Your task to perform on an android device: turn off picture-in-picture Image 0: 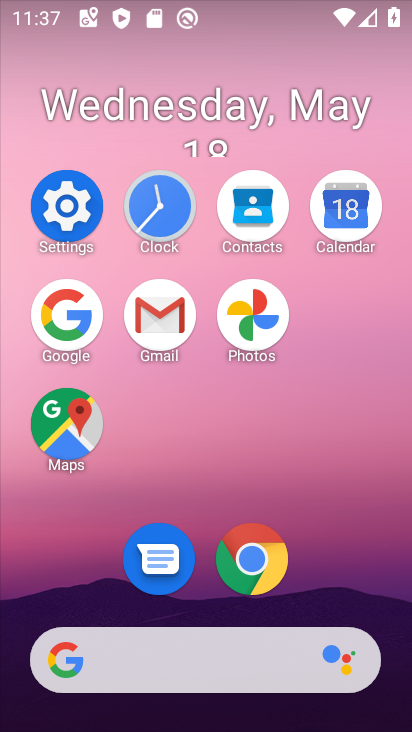
Step 0: click (242, 560)
Your task to perform on an android device: turn off picture-in-picture Image 1: 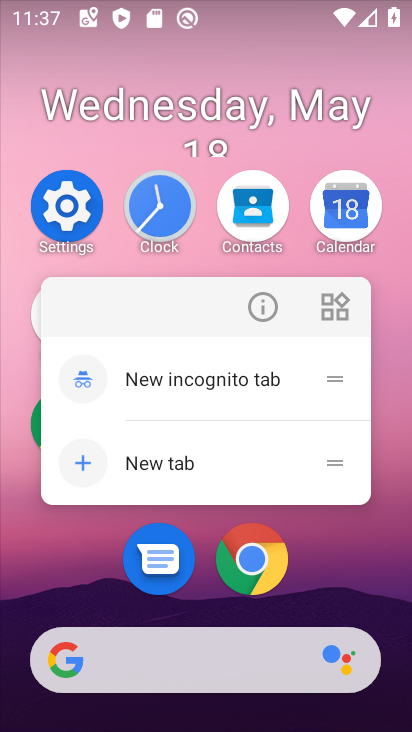
Step 1: click (272, 308)
Your task to perform on an android device: turn off picture-in-picture Image 2: 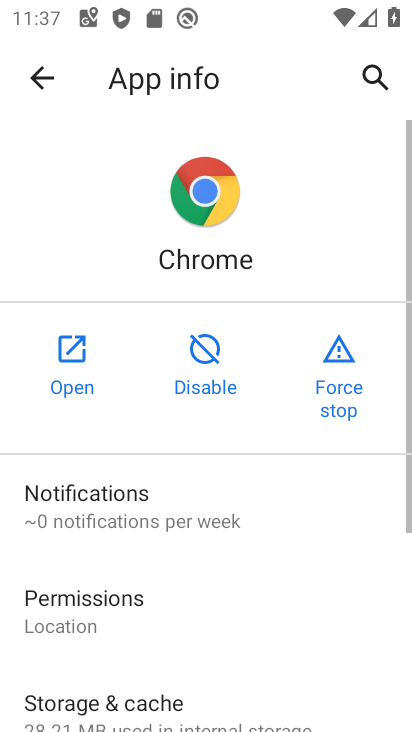
Step 2: drag from (252, 551) to (303, 159)
Your task to perform on an android device: turn off picture-in-picture Image 3: 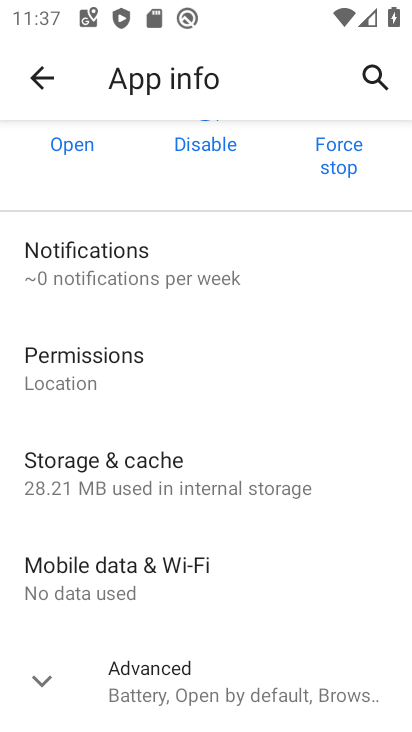
Step 3: drag from (254, 624) to (339, 146)
Your task to perform on an android device: turn off picture-in-picture Image 4: 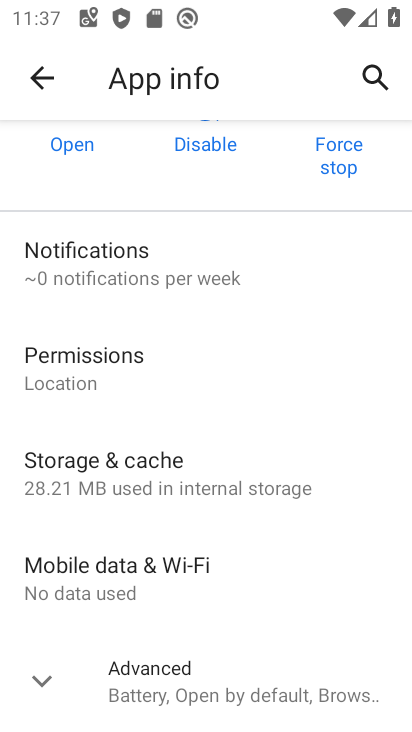
Step 4: click (198, 668)
Your task to perform on an android device: turn off picture-in-picture Image 5: 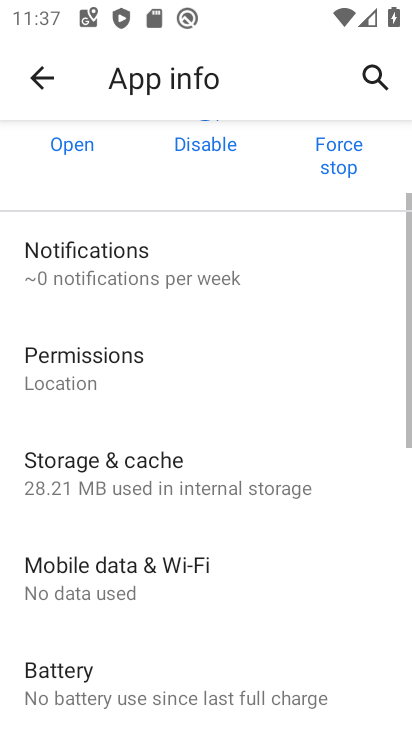
Step 5: drag from (275, 593) to (311, 203)
Your task to perform on an android device: turn off picture-in-picture Image 6: 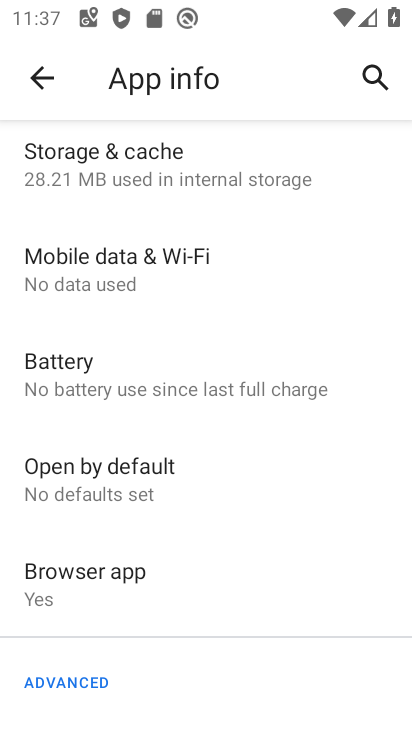
Step 6: drag from (240, 647) to (325, 172)
Your task to perform on an android device: turn off picture-in-picture Image 7: 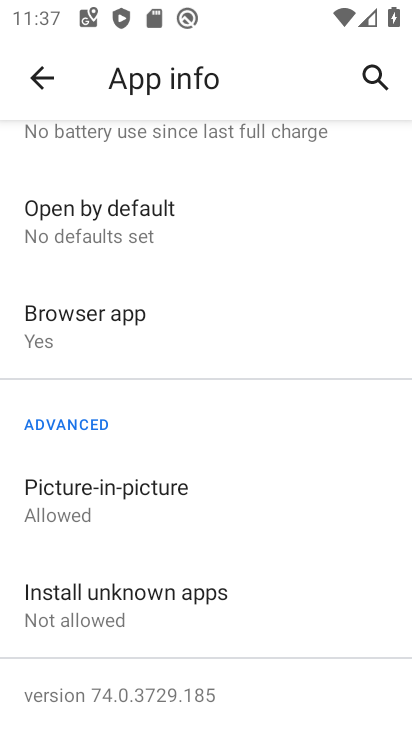
Step 7: click (173, 496)
Your task to perform on an android device: turn off picture-in-picture Image 8: 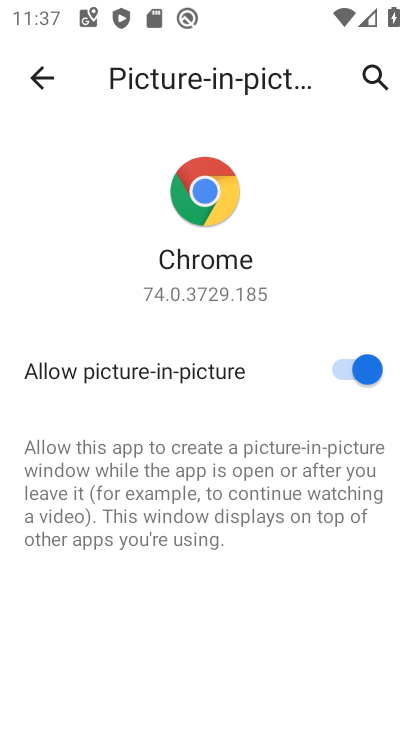
Step 8: click (354, 358)
Your task to perform on an android device: turn off picture-in-picture Image 9: 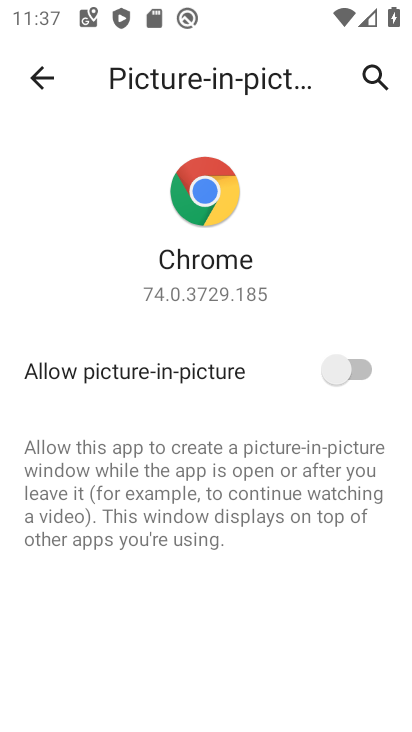
Step 9: task complete